Your task to perform on an android device: Open notification settings Image 0: 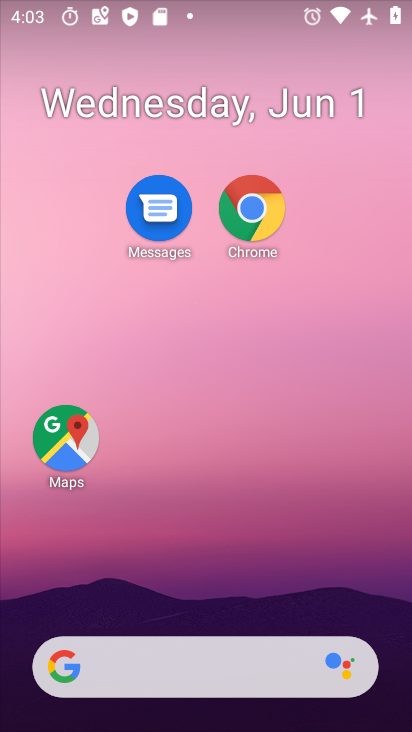
Step 0: drag from (202, 612) to (205, 199)
Your task to perform on an android device: Open notification settings Image 1: 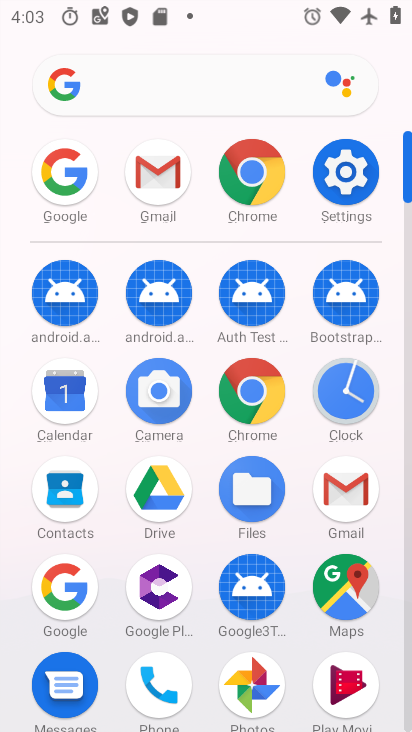
Step 1: click (342, 169)
Your task to perform on an android device: Open notification settings Image 2: 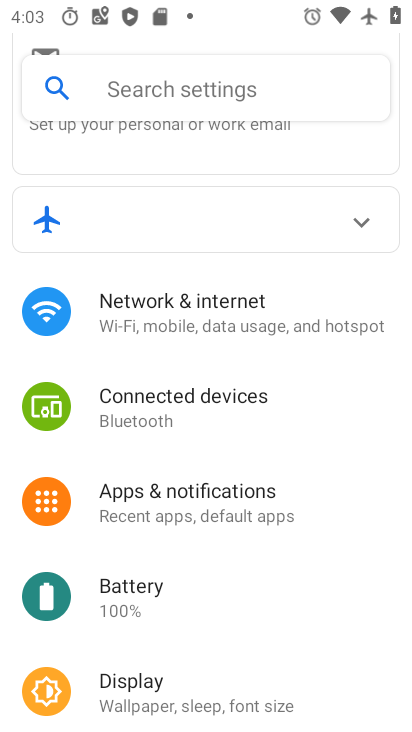
Step 2: click (213, 500)
Your task to perform on an android device: Open notification settings Image 3: 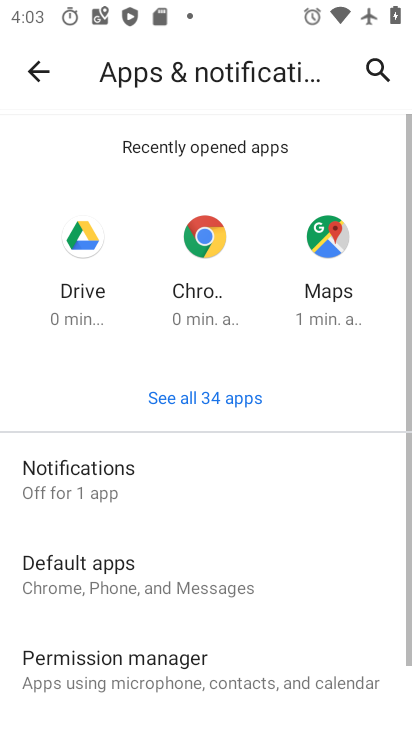
Step 3: click (165, 494)
Your task to perform on an android device: Open notification settings Image 4: 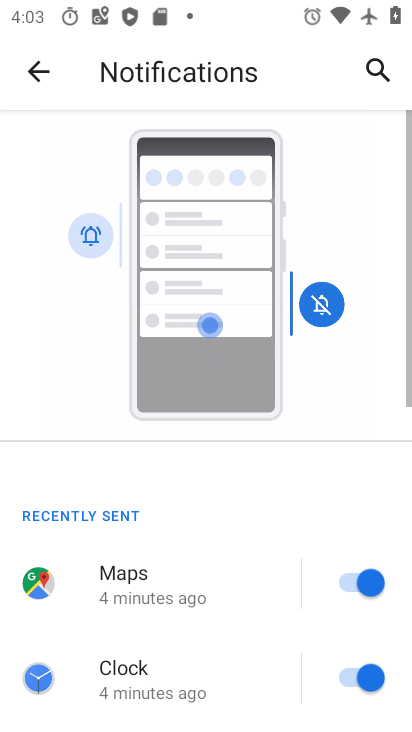
Step 4: task complete